Your task to perform on an android device: turn pop-ups on in chrome Image 0: 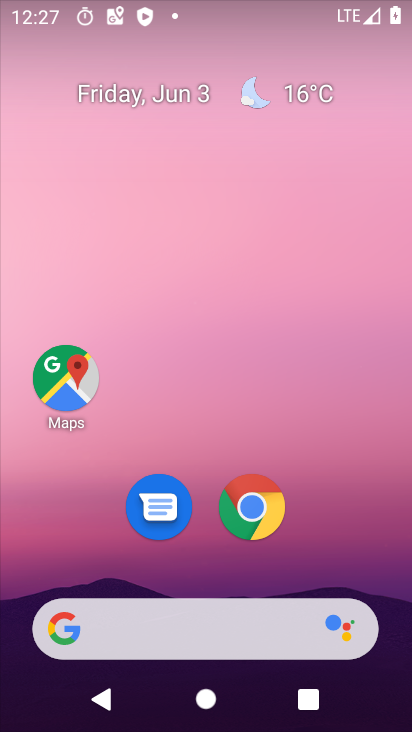
Step 0: drag from (390, 626) to (293, 83)
Your task to perform on an android device: turn pop-ups on in chrome Image 1: 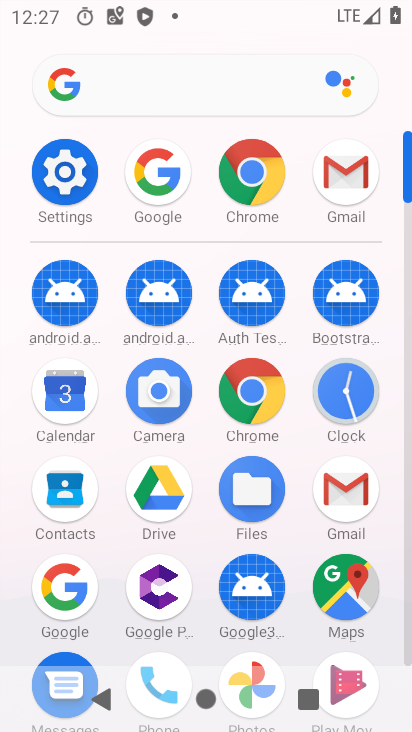
Step 1: click (251, 401)
Your task to perform on an android device: turn pop-ups on in chrome Image 2: 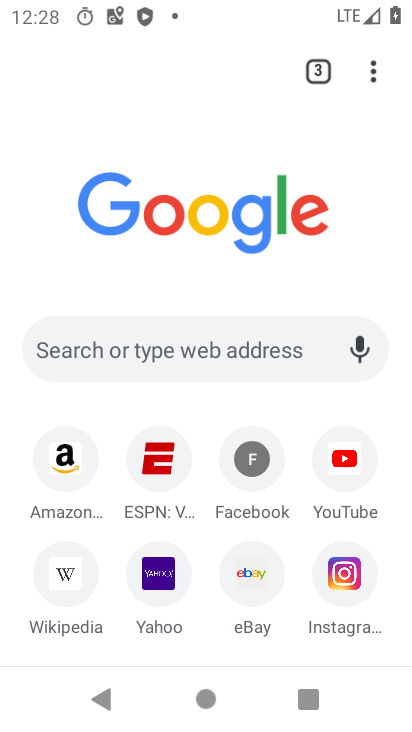
Step 2: click (370, 70)
Your task to perform on an android device: turn pop-ups on in chrome Image 3: 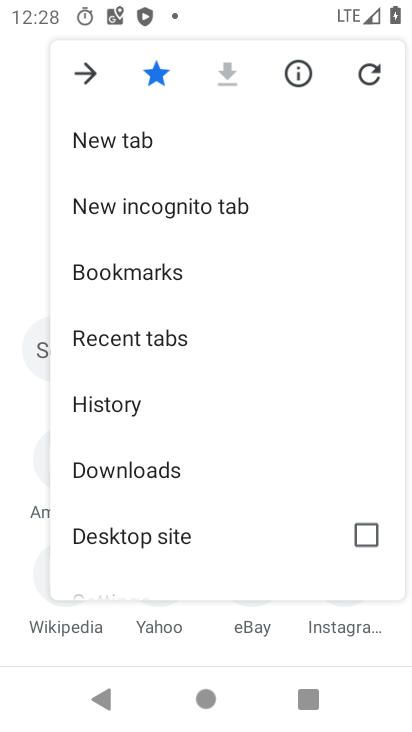
Step 3: drag from (153, 565) to (236, 113)
Your task to perform on an android device: turn pop-ups on in chrome Image 4: 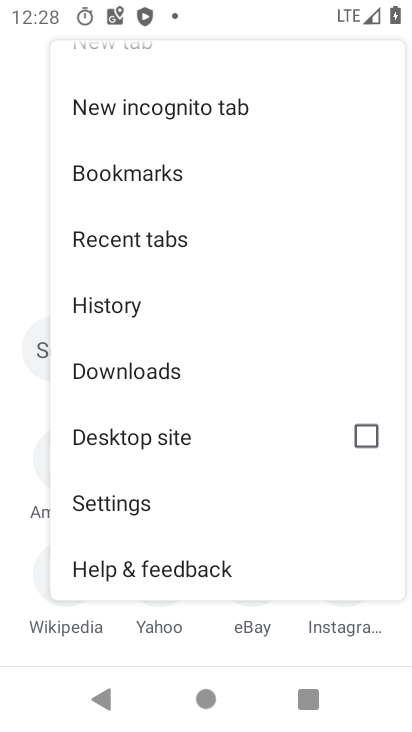
Step 4: click (140, 523)
Your task to perform on an android device: turn pop-ups on in chrome Image 5: 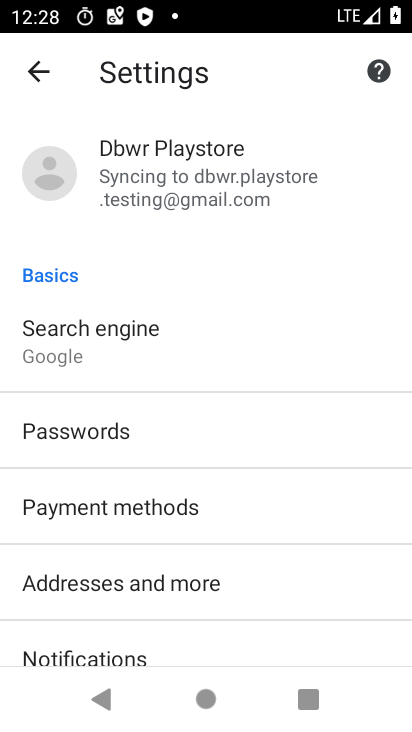
Step 5: drag from (262, 585) to (248, 86)
Your task to perform on an android device: turn pop-ups on in chrome Image 6: 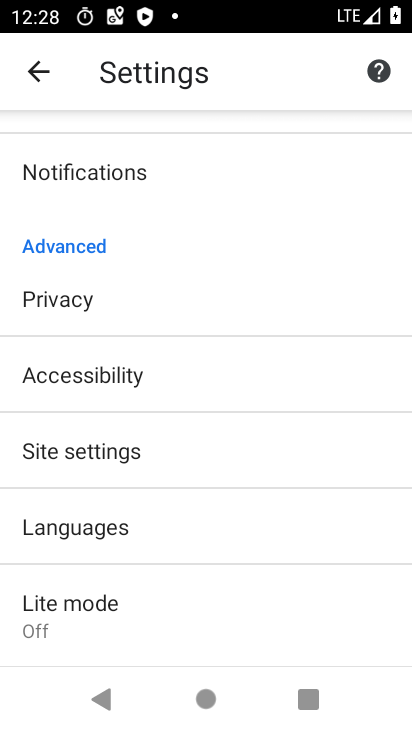
Step 6: click (108, 468)
Your task to perform on an android device: turn pop-ups on in chrome Image 7: 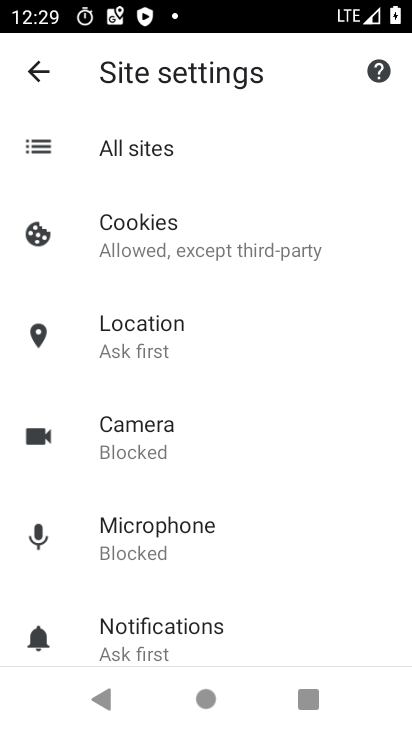
Step 7: drag from (209, 654) to (258, 260)
Your task to perform on an android device: turn pop-ups on in chrome Image 8: 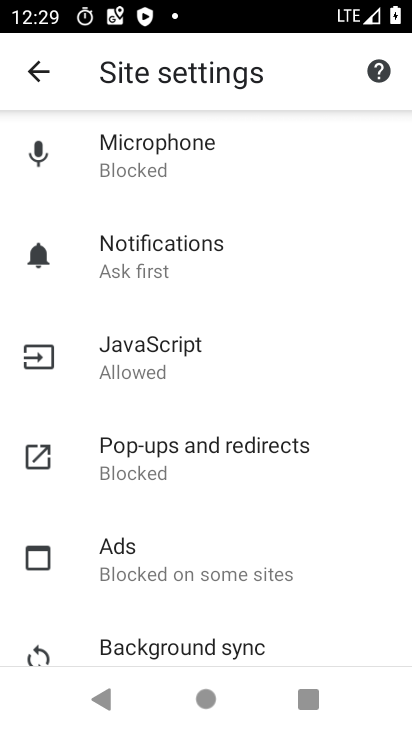
Step 8: click (195, 433)
Your task to perform on an android device: turn pop-ups on in chrome Image 9: 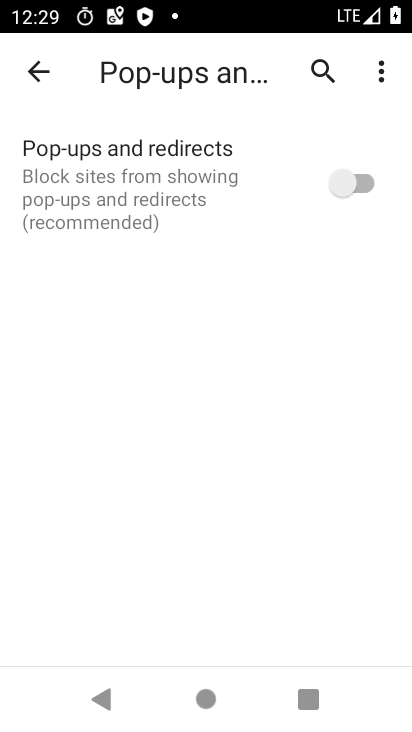
Step 9: click (288, 203)
Your task to perform on an android device: turn pop-ups on in chrome Image 10: 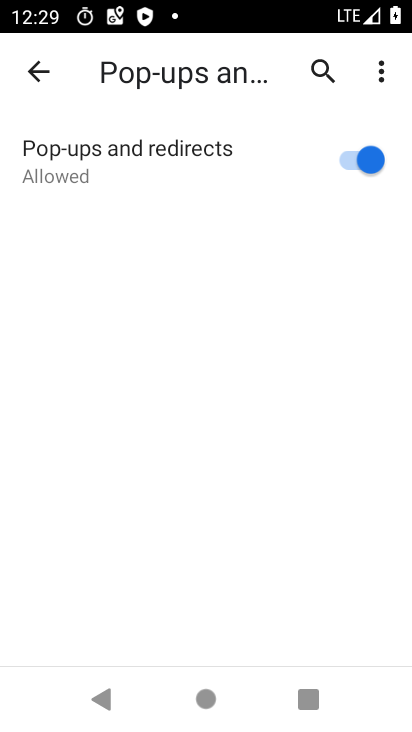
Step 10: task complete